Your task to perform on an android device: toggle location history Image 0: 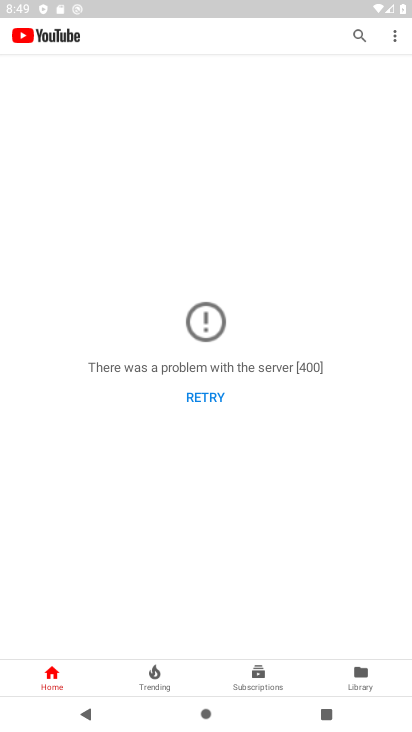
Step 0: press home button
Your task to perform on an android device: toggle location history Image 1: 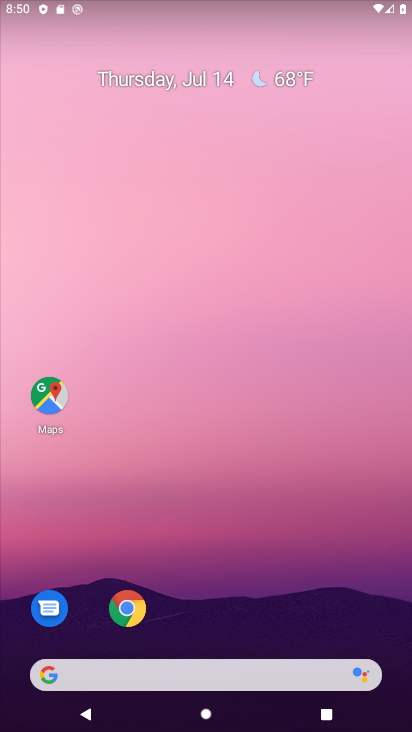
Step 1: drag from (217, 668) to (251, 131)
Your task to perform on an android device: toggle location history Image 2: 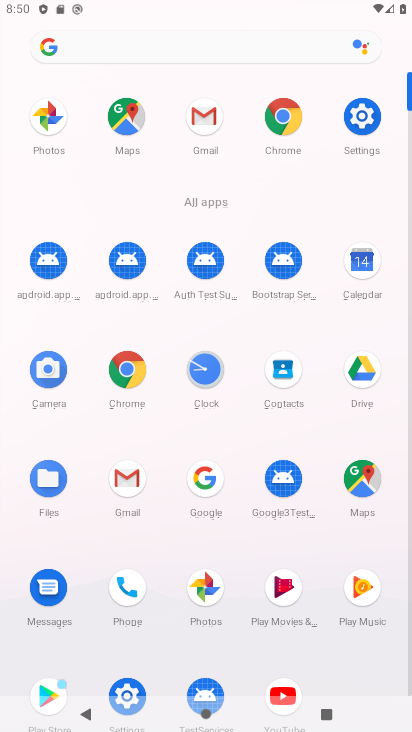
Step 2: click (362, 120)
Your task to perform on an android device: toggle location history Image 3: 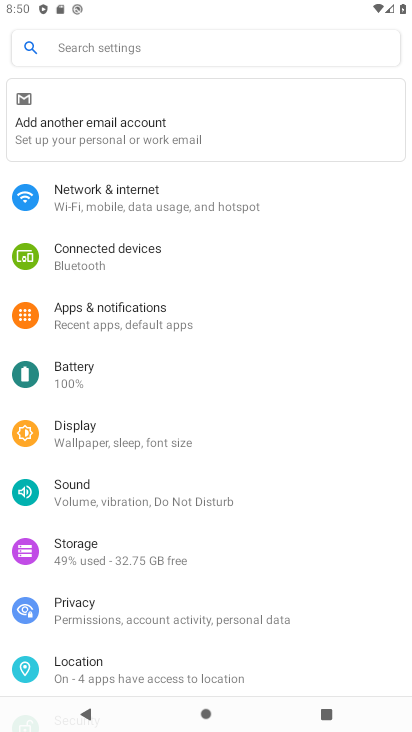
Step 3: click (96, 667)
Your task to perform on an android device: toggle location history Image 4: 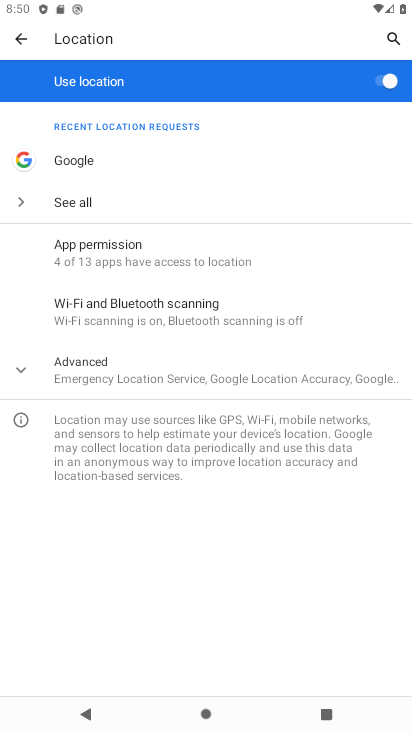
Step 4: click (152, 370)
Your task to perform on an android device: toggle location history Image 5: 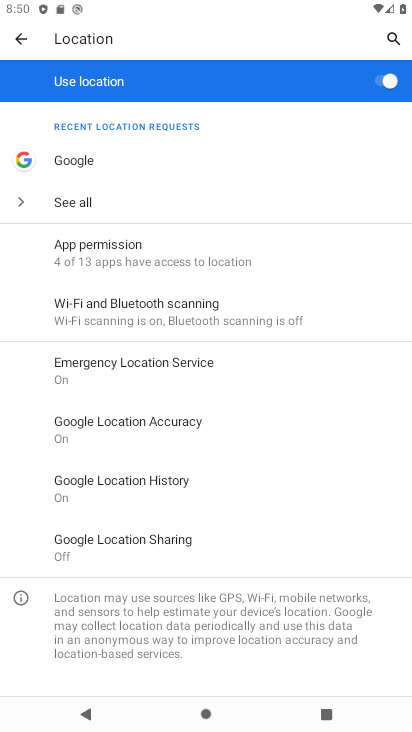
Step 5: click (170, 477)
Your task to perform on an android device: toggle location history Image 6: 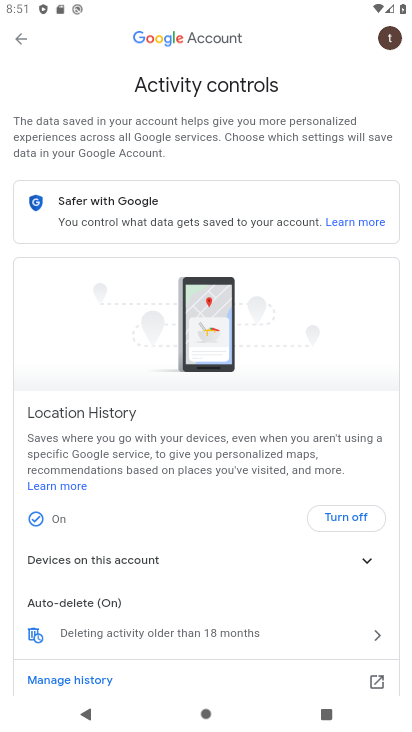
Step 6: click (336, 525)
Your task to perform on an android device: toggle location history Image 7: 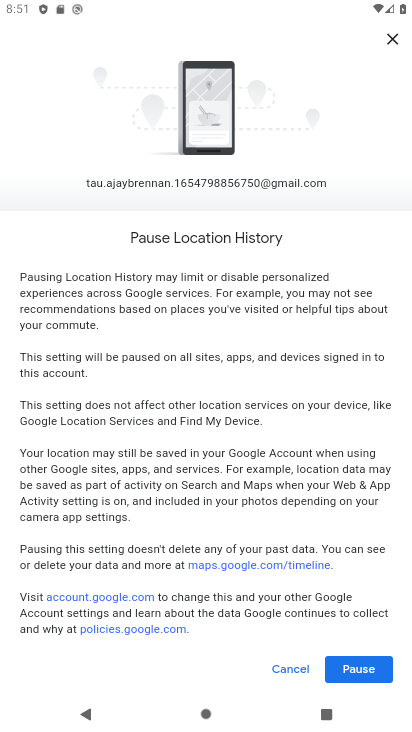
Step 7: click (369, 671)
Your task to perform on an android device: toggle location history Image 8: 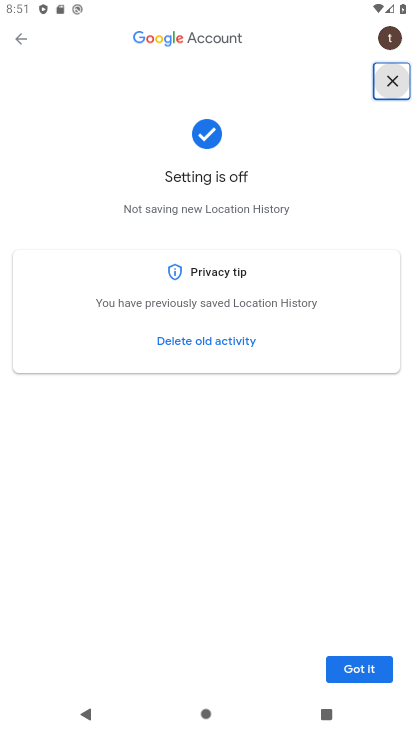
Step 8: click (369, 671)
Your task to perform on an android device: toggle location history Image 9: 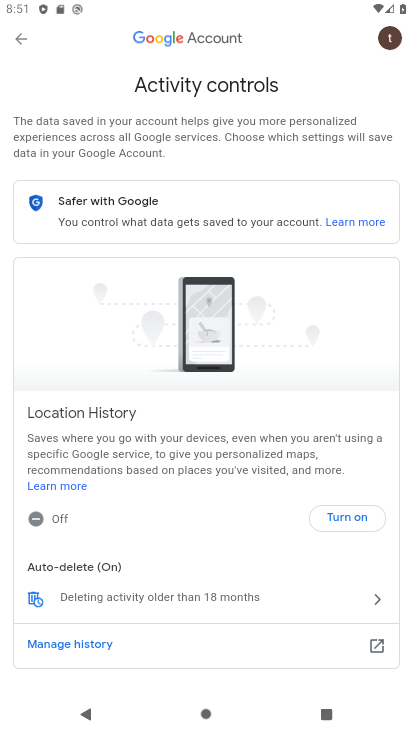
Step 9: task complete